Your task to perform on an android device: Show me recent news Image 0: 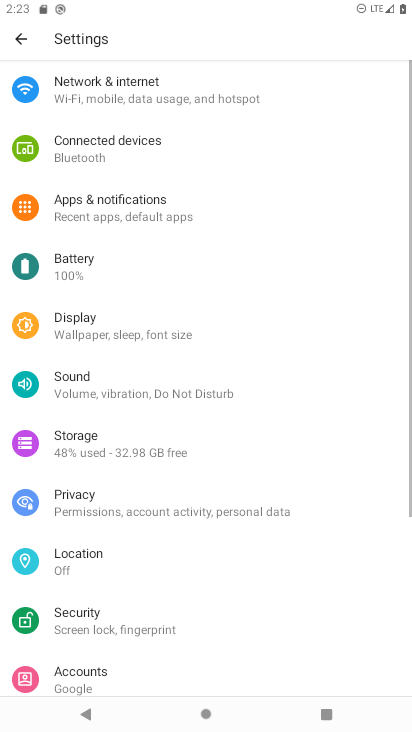
Step 0: press home button
Your task to perform on an android device: Show me recent news Image 1: 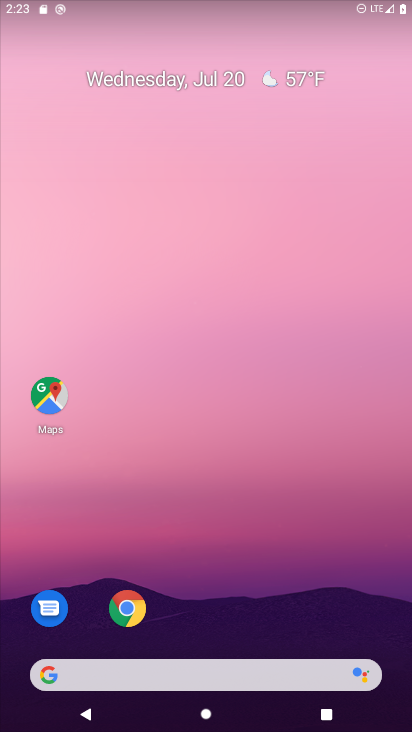
Step 1: task complete